Your task to perform on an android device: turn pop-ups on in chrome Image 0: 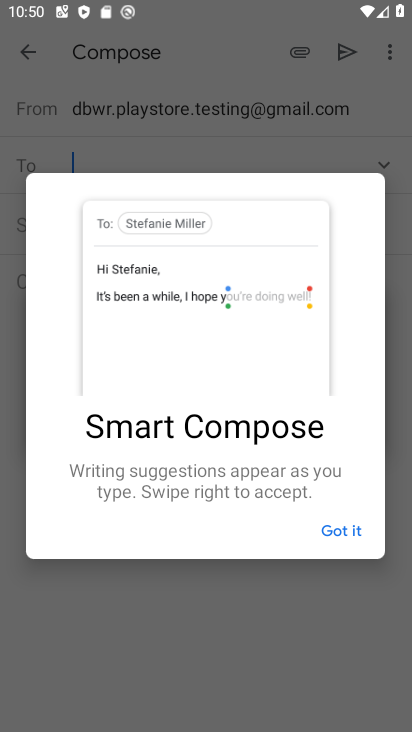
Step 0: task complete